Your task to perform on an android device: open app "Adobe Acrobat Reader: Edit PDF" (install if not already installed) and go to login screen Image 0: 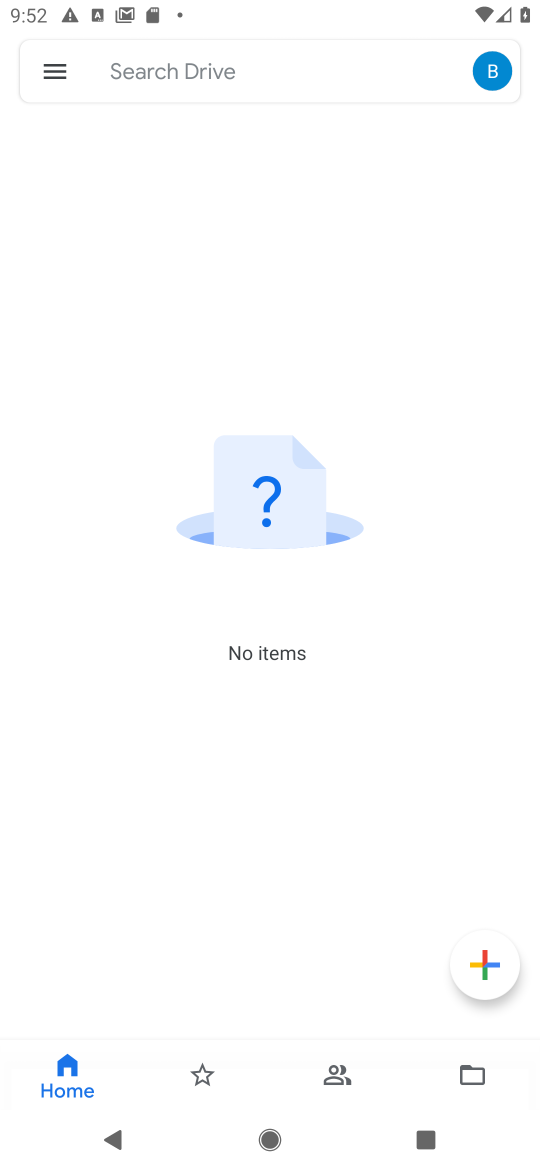
Step 0: press home button
Your task to perform on an android device: open app "Adobe Acrobat Reader: Edit PDF" (install if not already installed) and go to login screen Image 1: 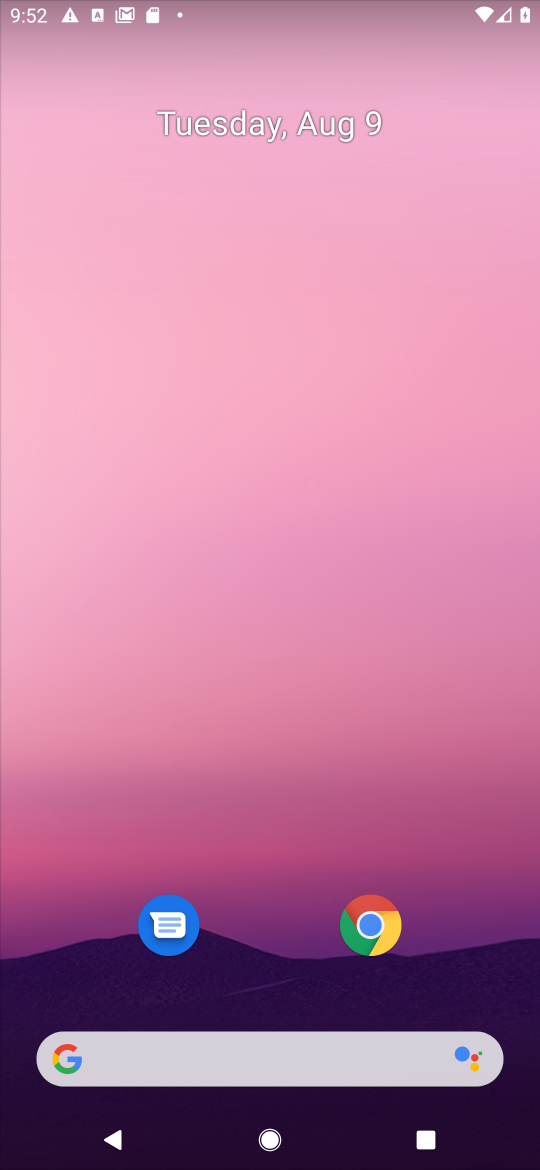
Step 1: drag from (232, 861) to (266, 4)
Your task to perform on an android device: open app "Adobe Acrobat Reader: Edit PDF" (install if not already installed) and go to login screen Image 2: 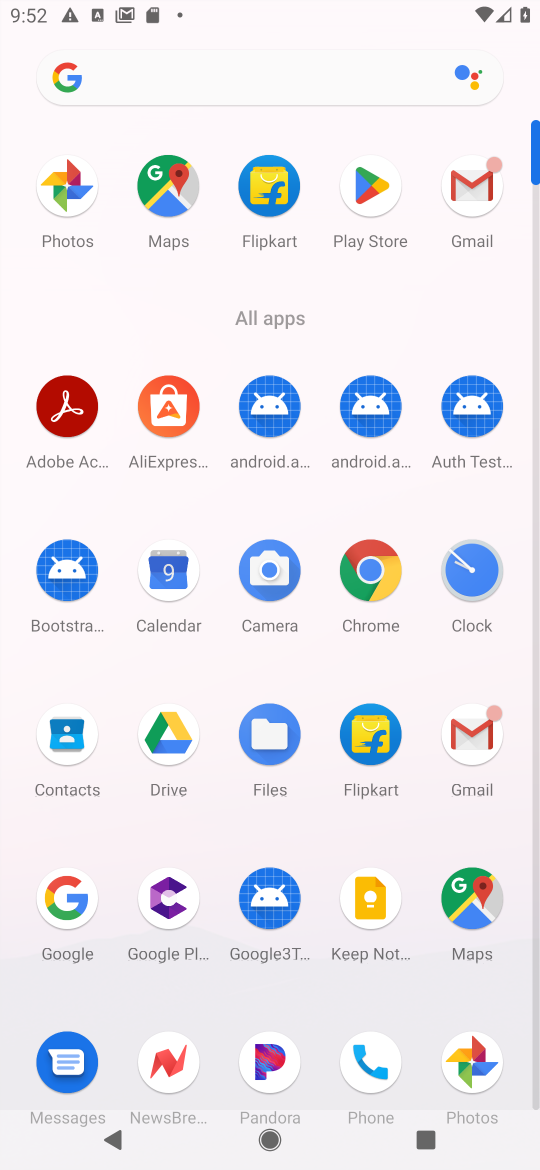
Step 2: click (375, 206)
Your task to perform on an android device: open app "Adobe Acrobat Reader: Edit PDF" (install if not already installed) and go to login screen Image 3: 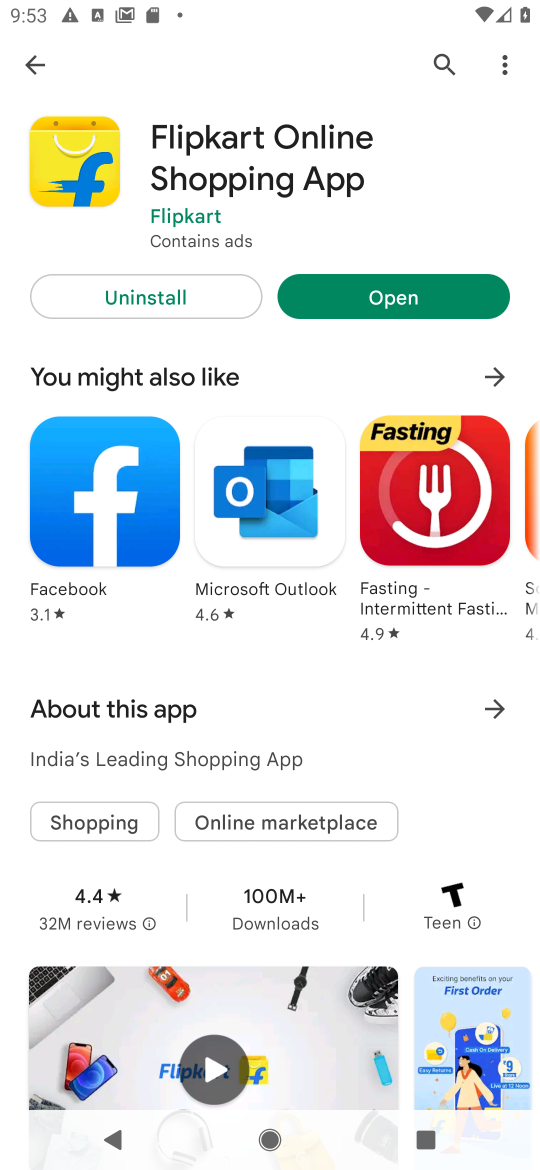
Step 3: click (382, 284)
Your task to perform on an android device: open app "Adobe Acrobat Reader: Edit PDF" (install if not already installed) and go to login screen Image 4: 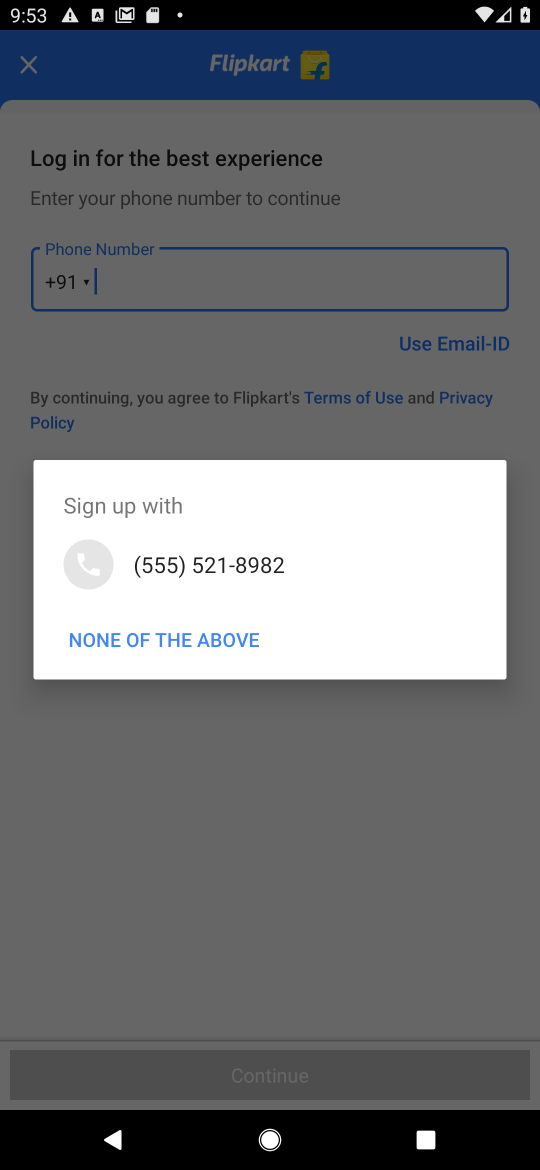
Step 4: press home button
Your task to perform on an android device: open app "Adobe Acrobat Reader: Edit PDF" (install if not already installed) and go to login screen Image 5: 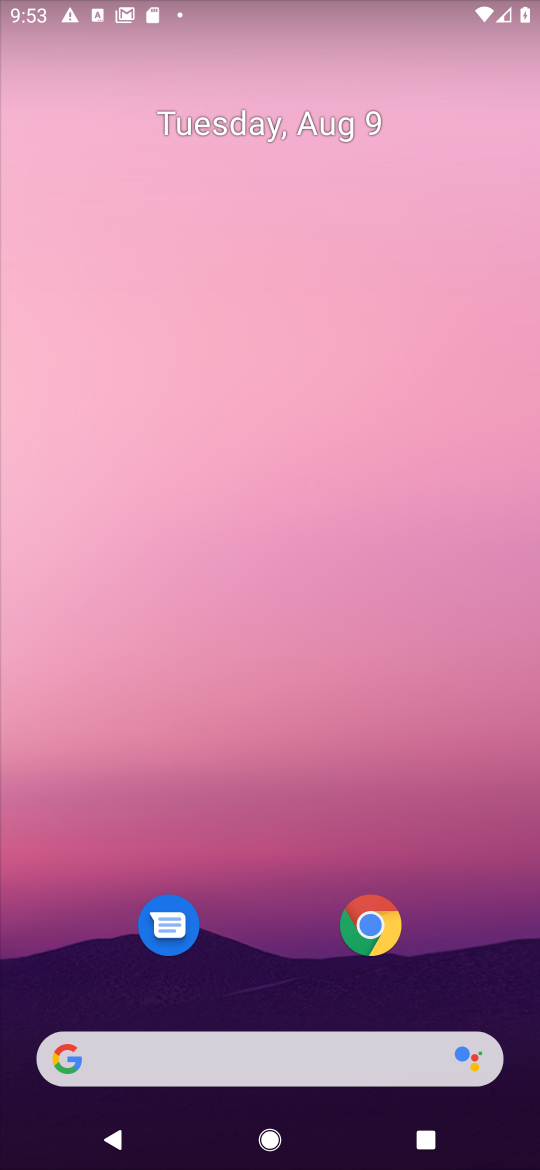
Step 5: drag from (263, 952) to (246, 60)
Your task to perform on an android device: open app "Adobe Acrobat Reader: Edit PDF" (install if not already installed) and go to login screen Image 6: 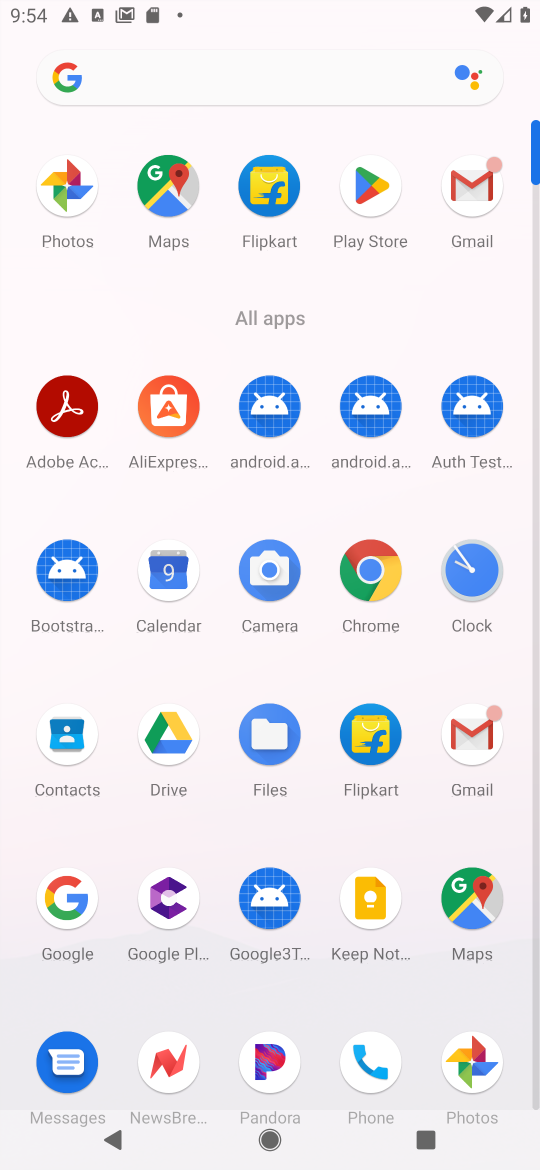
Step 6: drag from (243, 777) to (194, 272)
Your task to perform on an android device: open app "Adobe Acrobat Reader: Edit PDF" (install if not already installed) and go to login screen Image 7: 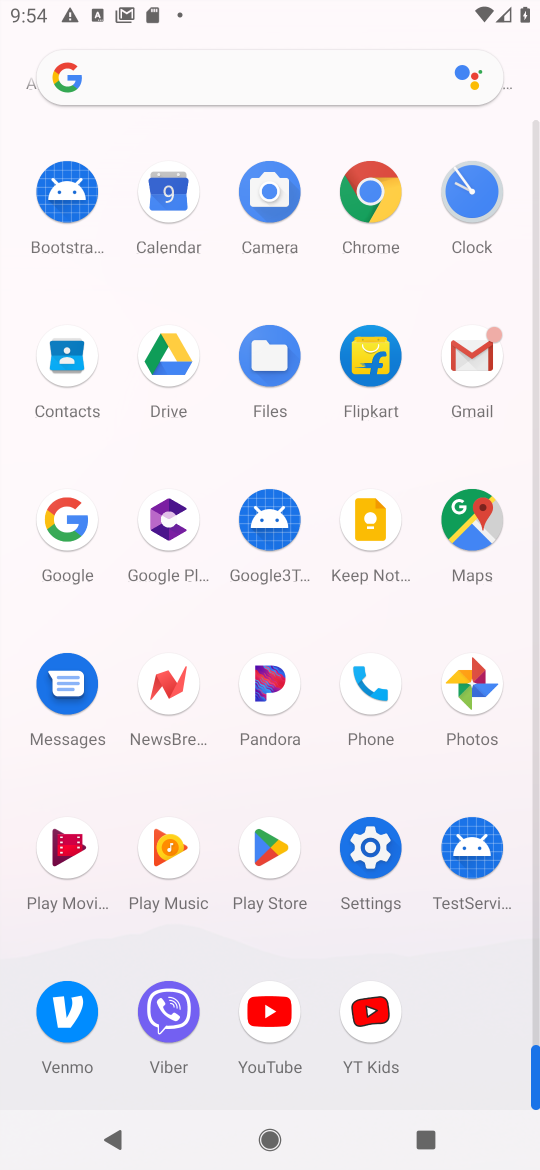
Step 7: drag from (320, 724) to (316, 1153)
Your task to perform on an android device: open app "Adobe Acrobat Reader: Edit PDF" (install if not already installed) and go to login screen Image 8: 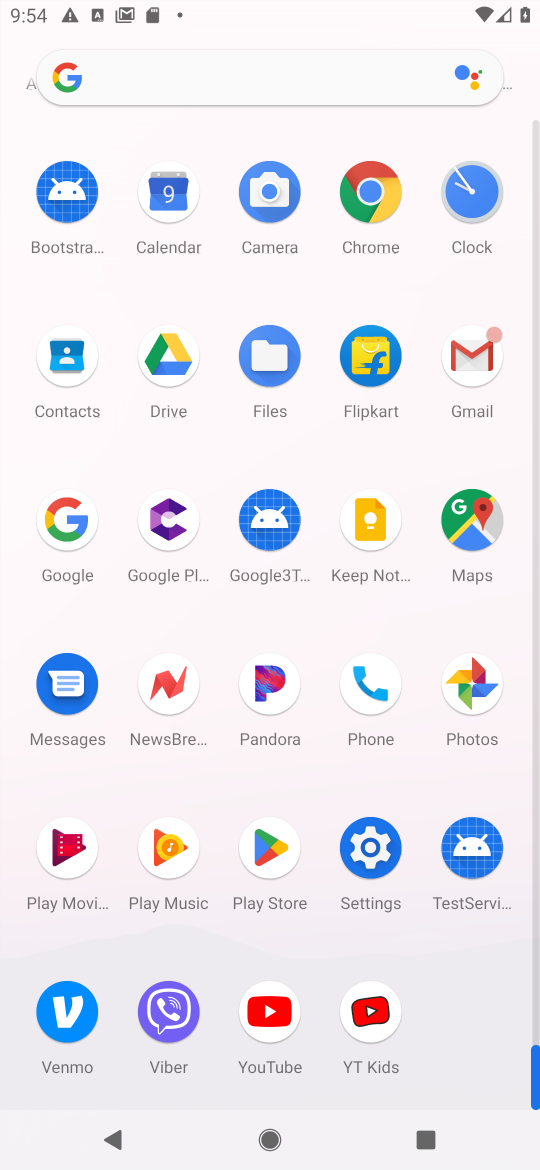
Step 8: drag from (287, 312) to (343, 1014)
Your task to perform on an android device: open app "Adobe Acrobat Reader: Edit PDF" (install if not already installed) and go to login screen Image 9: 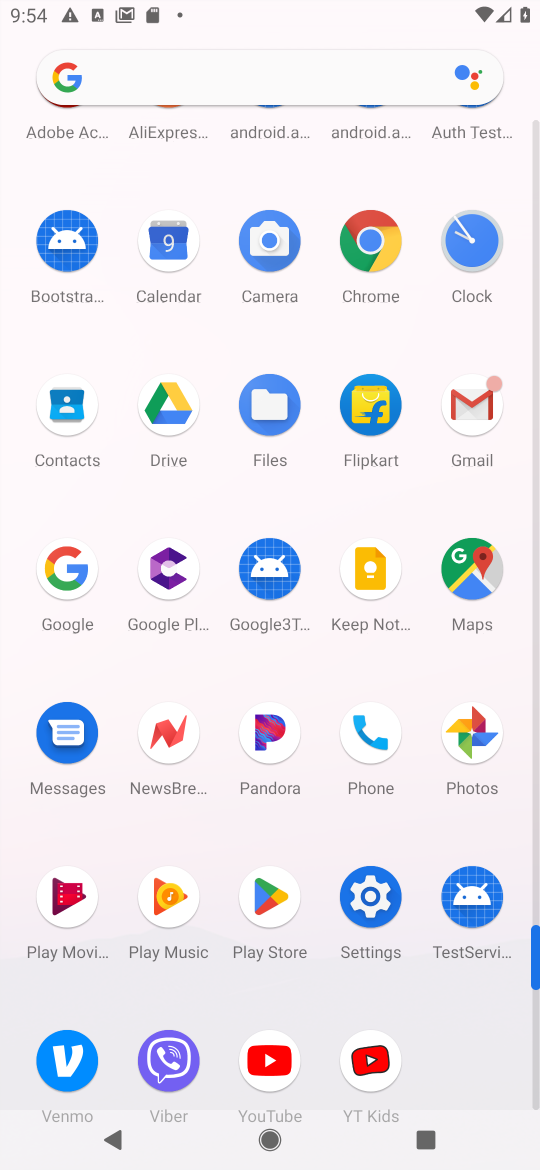
Step 9: drag from (333, 208) to (420, 898)
Your task to perform on an android device: open app "Adobe Acrobat Reader: Edit PDF" (install if not already installed) and go to login screen Image 10: 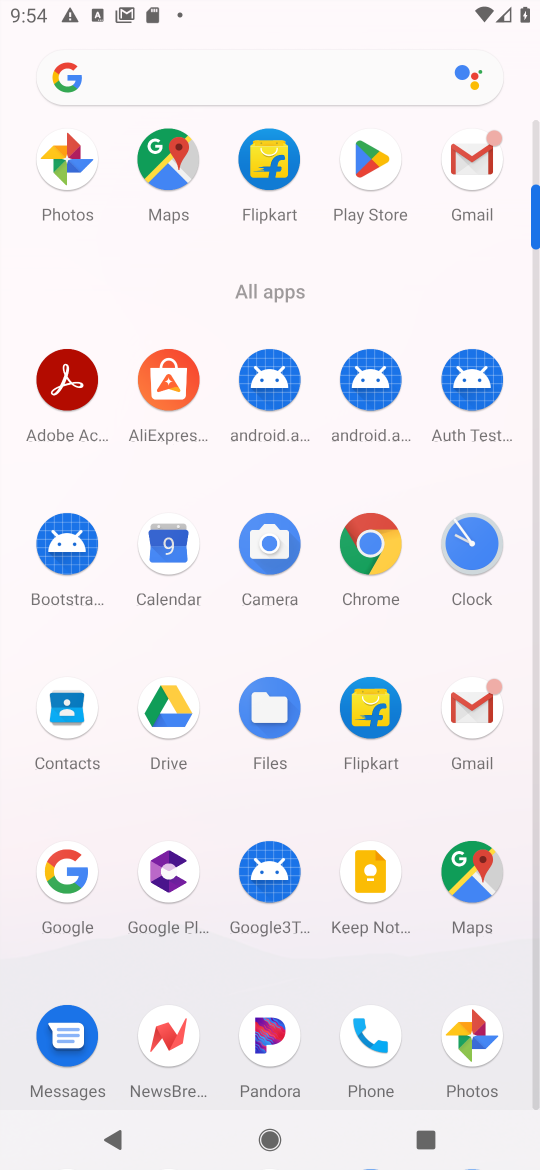
Step 10: click (365, 175)
Your task to perform on an android device: open app "Adobe Acrobat Reader: Edit PDF" (install if not already installed) and go to login screen Image 11: 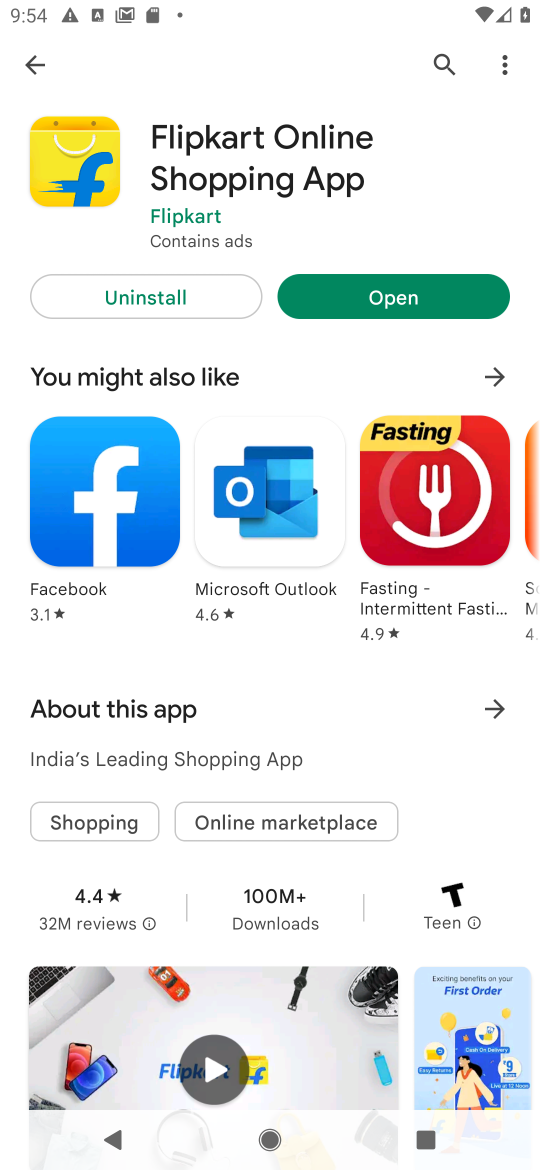
Step 11: click (40, 71)
Your task to perform on an android device: open app "Adobe Acrobat Reader: Edit PDF" (install if not already installed) and go to login screen Image 12: 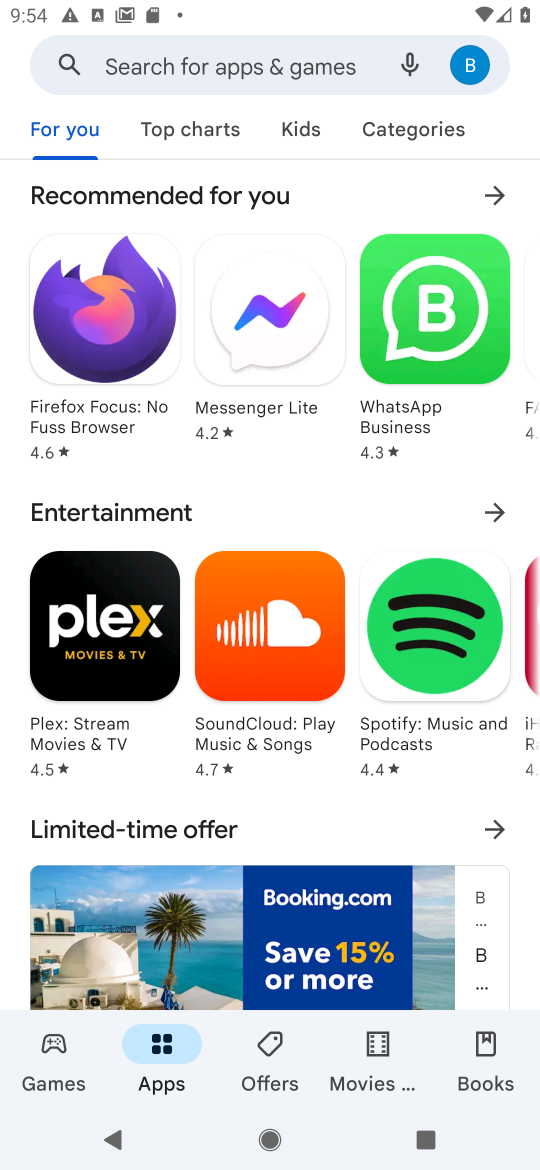
Step 12: click (135, 71)
Your task to perform on an android device: open app "Adobe Acrobat Reader: Edit PDF" (install if not already installed) and go to login screen Image 13: 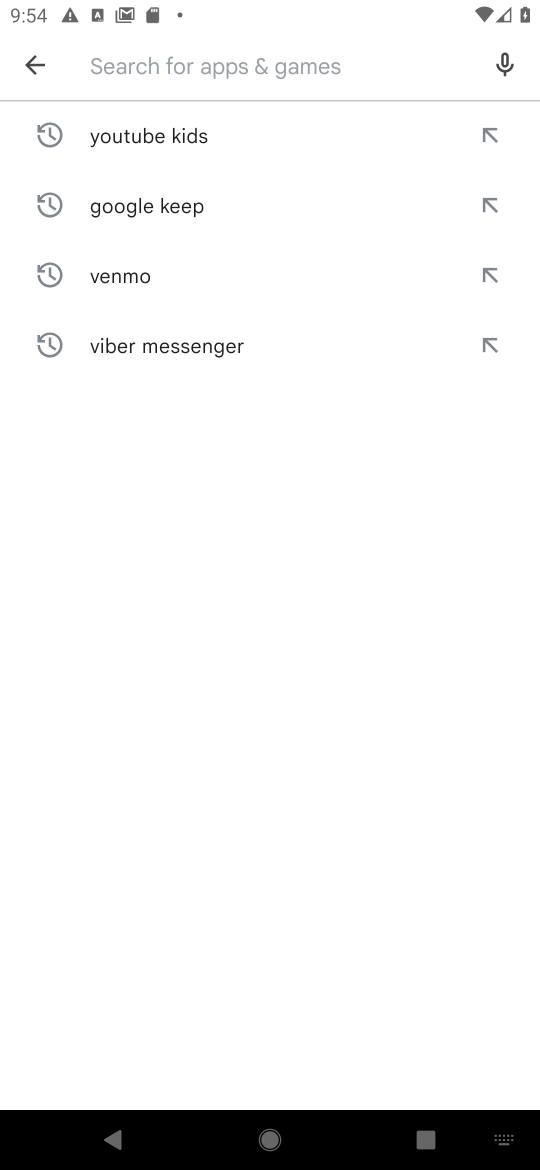
Step 13: type "Adobe Acrobat Reader: Edit PDF"
Your task to perform on an android device: open app "Adobe Acrobat Reader: Edit PDF" (install if not already installed) and go to login screen Image 14: 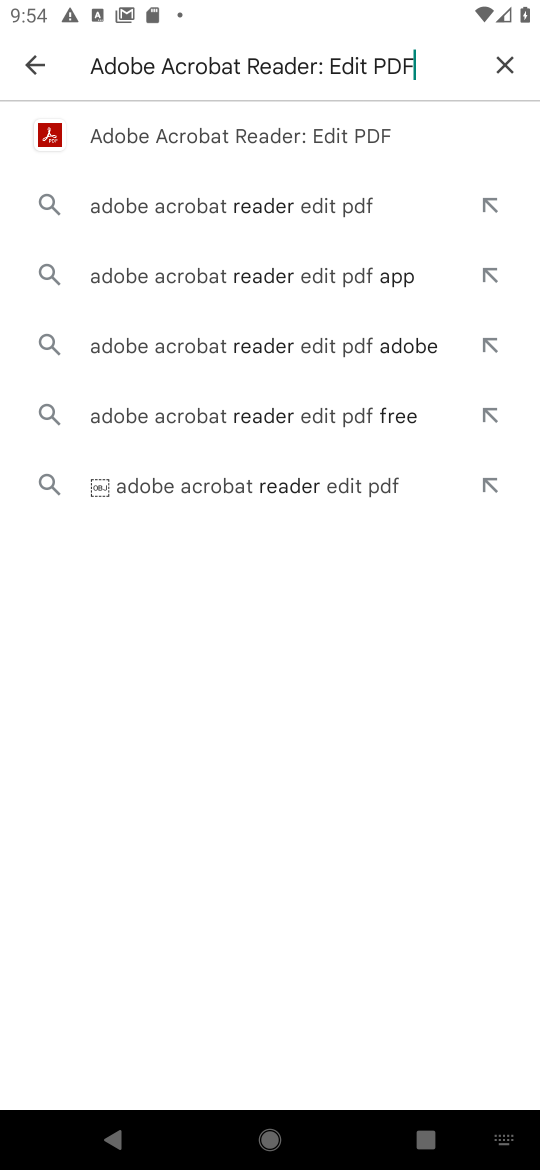
Step 14: click (225, 142)
Your task to perform on an android device: open app "Adobe Acrobat Reader: Edit PDF" (install if not already installed) and go to login screen Image 15: 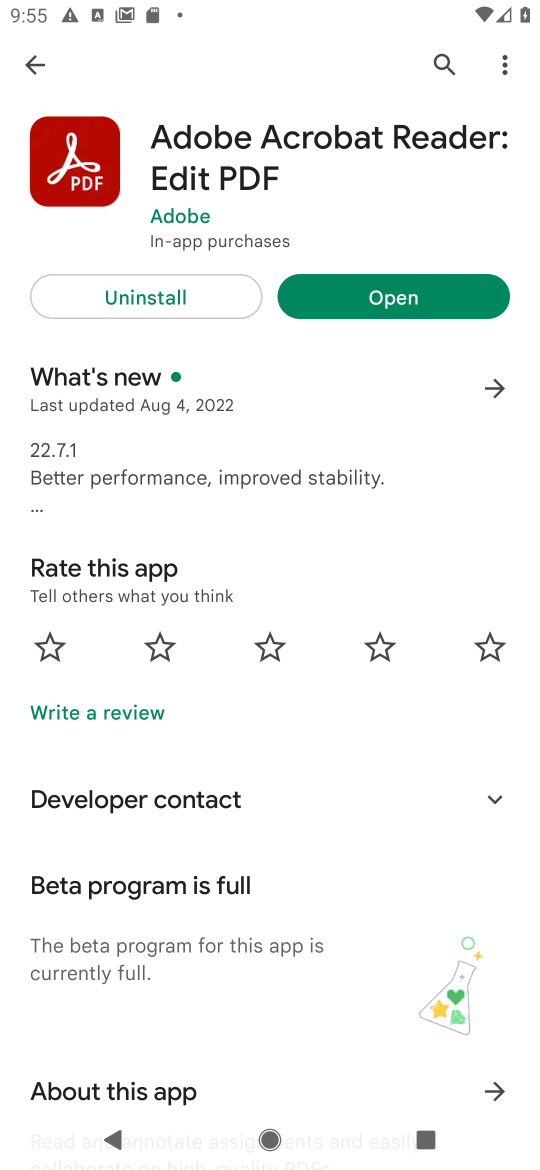
Step 15: click (376, 288)
Your task to perform on an android device: open app "Adobe Acrobat Reader: Edit PDF" (install if not already installed) and go to login screen Image 16: 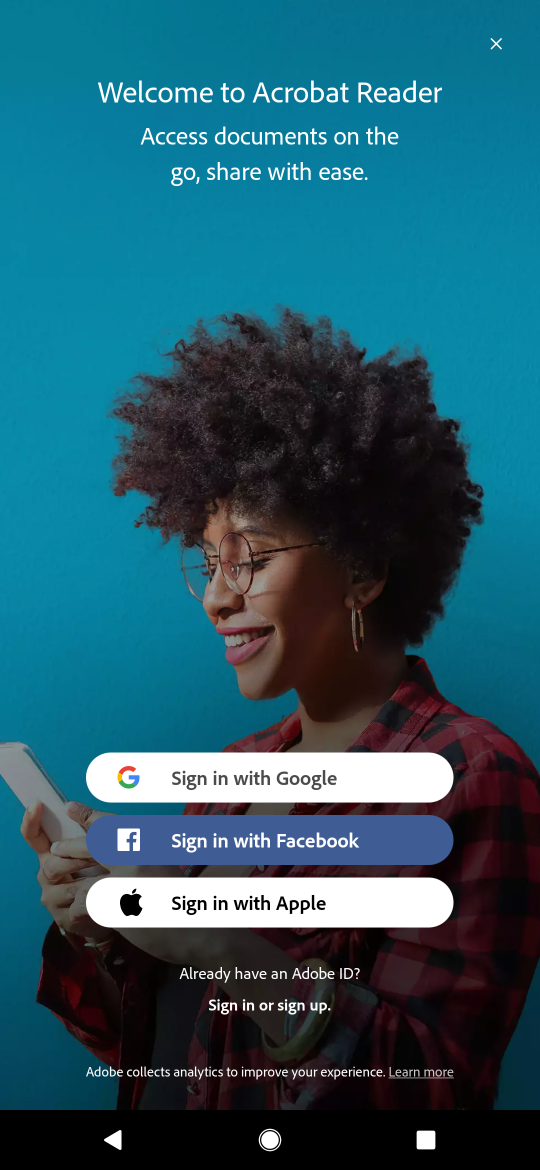
Step 16: task complete